Your task to perform on an android device: Turn off the flashlight Image 0: 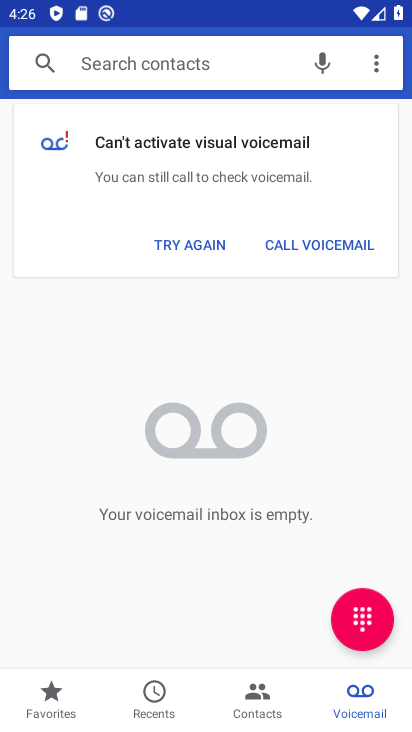
Step 0: press home button
Your task to perform on an android device: Turn off the flashlight Image 1: 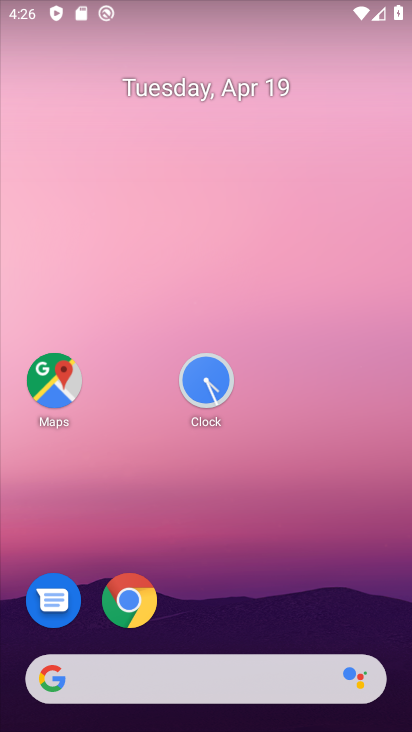
Step 1: drag from (268, 566) to (66, 9)
Your task to perform on an android device: Turn off the flashlight Image 2: 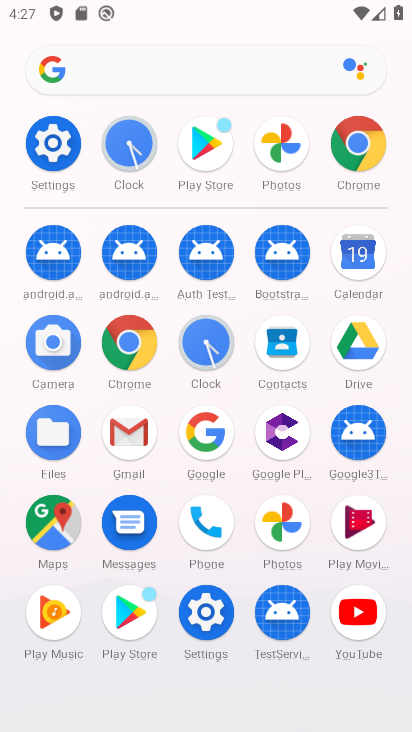
Step 2: click (56, 142)
Your task to perform on an android device: Turn off the flashlight Image 3: 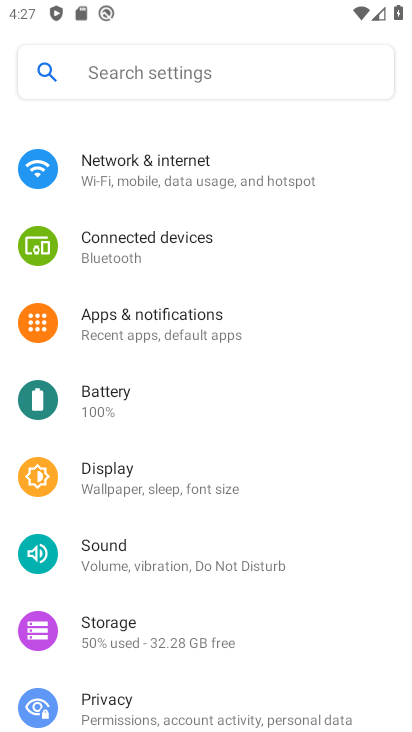
Step 3: click (55, 143)
Your task to perform on an android device: Turn off the flashlight Image 4: 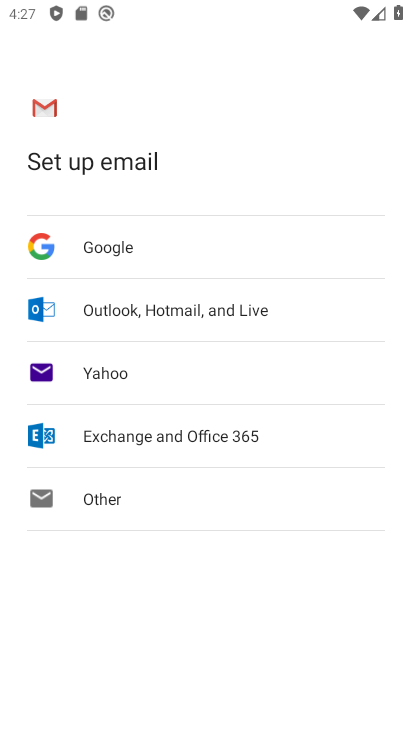
Step 4: press back button
Your task to perform on an android device: Turn off the flashlight Image 5: 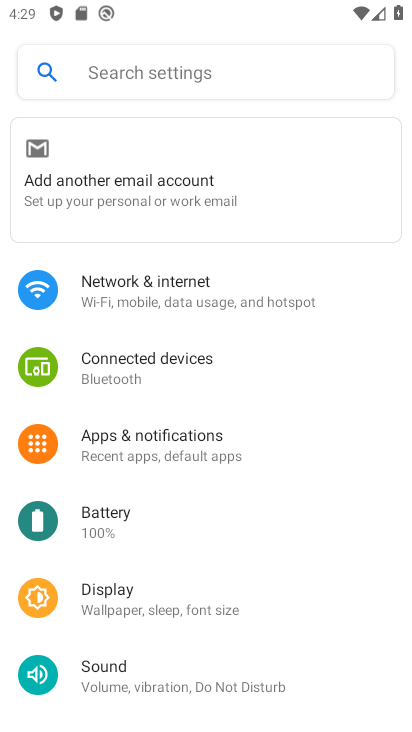
Step 5: click (151, 306)
Your task to perform on an android device: Turn off the flashlight Image 6: 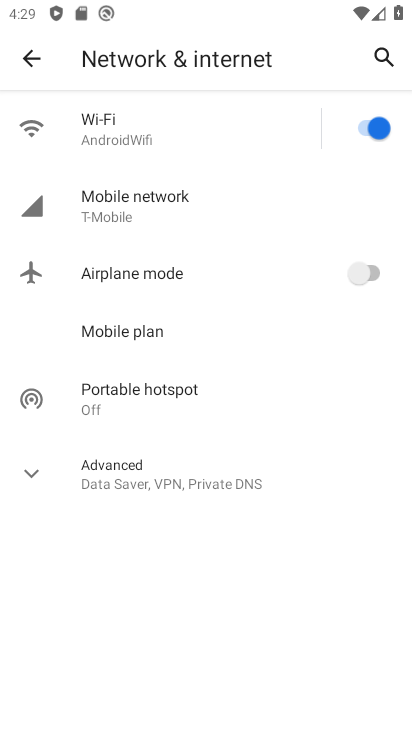
Step 6: task complete